Your task to perform on an android device: search for starred emails in the gmail app Image 0: 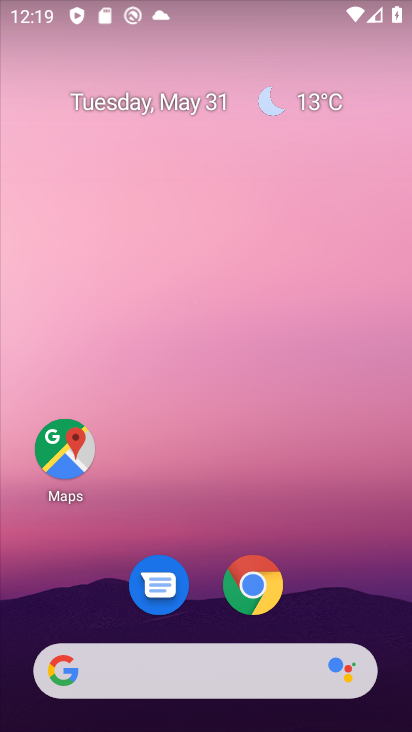
Step 0: drag from (230, 461) to (239, 21)
Your task to perform on an android device: search for starred emails in the gmail app Image 1: 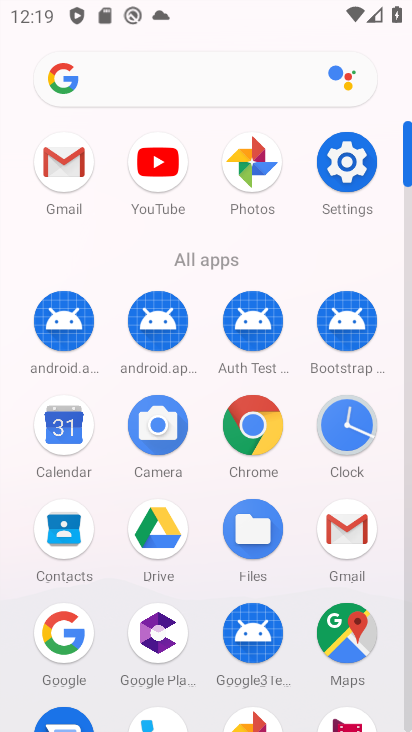
Step 1: click (343, 526)
Your task to perform on an android device: search for starred emails in the gmail app Image 2: 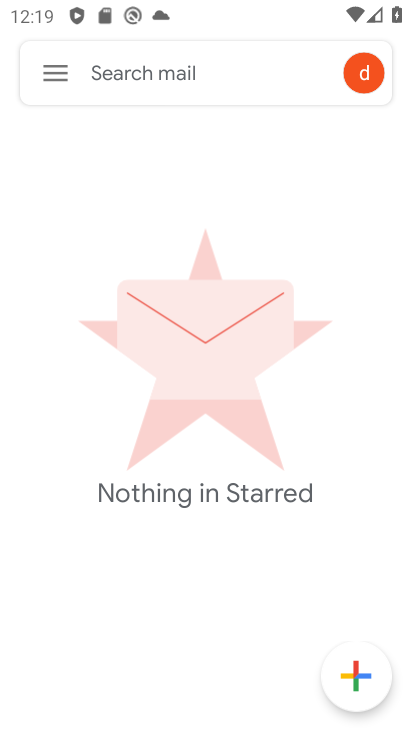
Step 2: task complete